Your task to perform on an android device: Open the web browser Image 0: 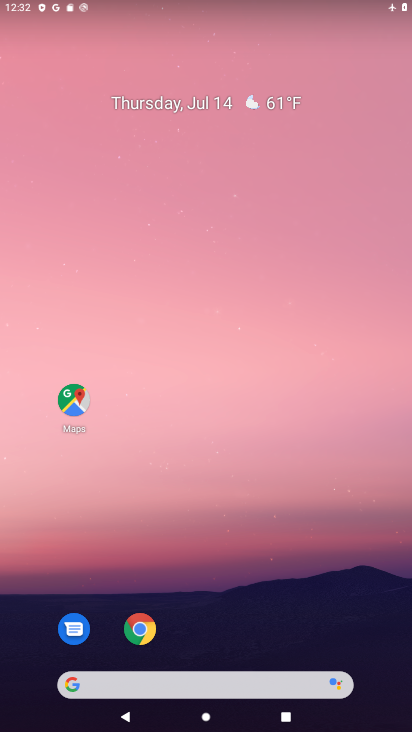
Step 0: click (131, 679)
Your task to perform on an android device: Open the web browser Image 1: 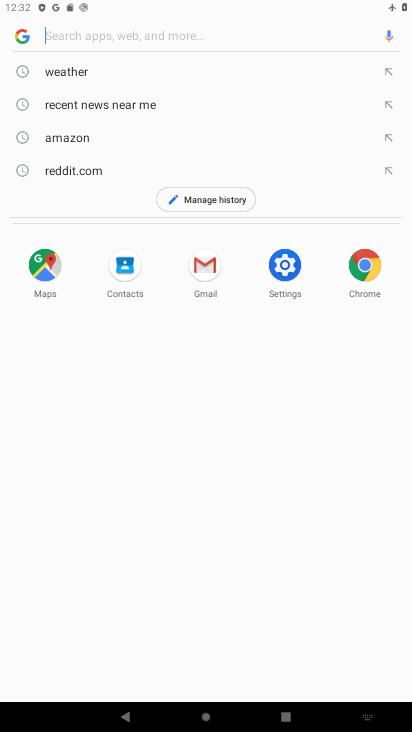
Step 1: task complete